Your task to perform on an android device: change the upload size in google photos Image 0: 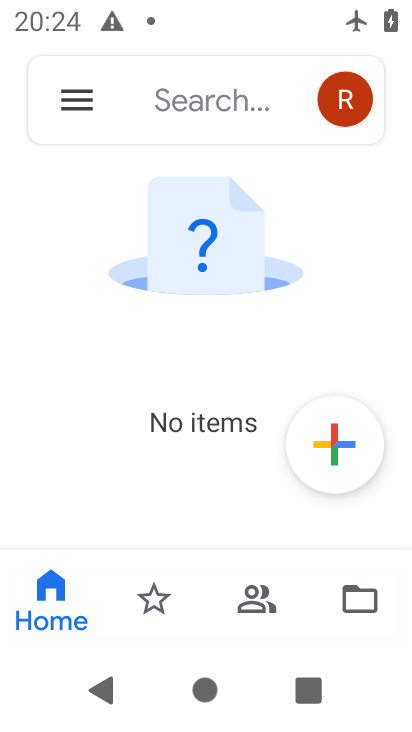
Step 0: press home button
Your task to perform on an android device: change the upload size in google photos Image 1: 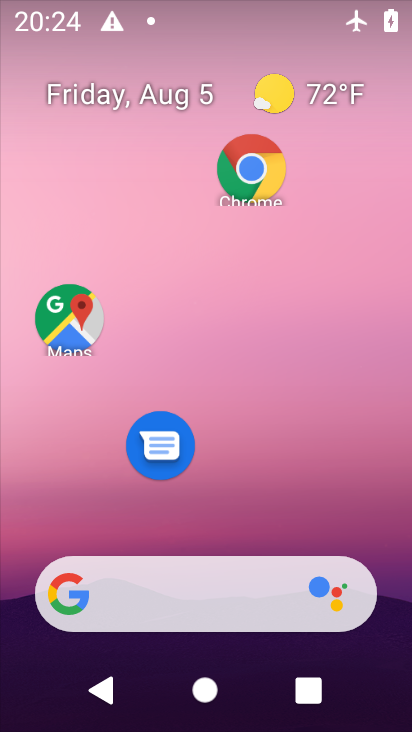
Step 1: drag from (212, 536) to (183, 230)
Your task to perform on an android device: change the upload size in google photos Image 2: 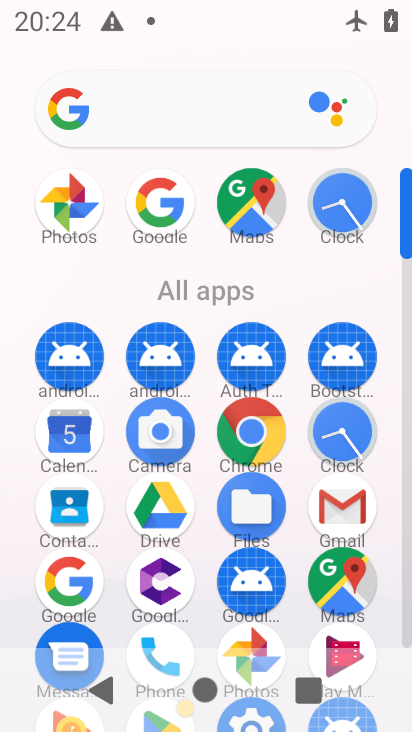
Step 2: click (77, 226)
Your task to perform on an android device: change the upload size in google photos Image 3: 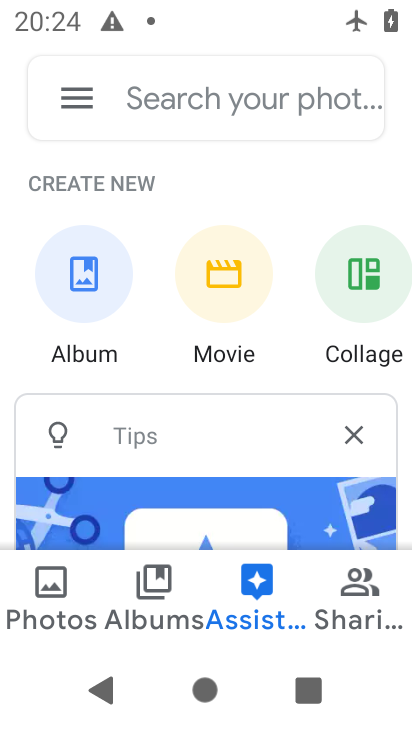
Step 3: click (90, 109)
Your task to perform on an android device: change the upload size in google photos Image 4: 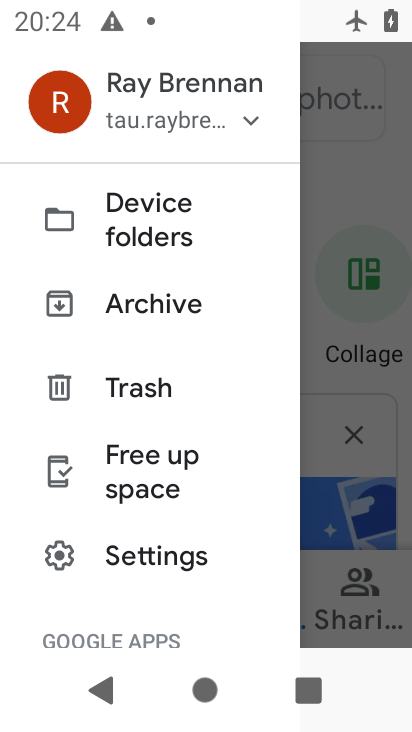
Step 4: drag from (129, 524) to (145, 263)
Your task to perform on an android device: change the upload size in google photos Image 5: 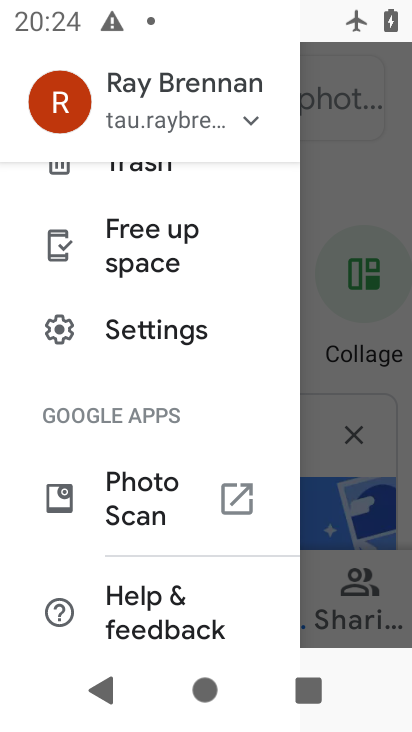
Step 5: click (149, 343)
Your task to perform on an android device: change the upload size in google photos Image 6: 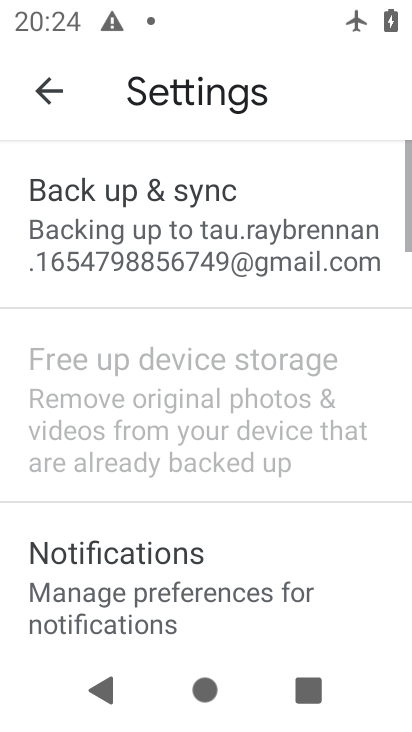
Step 6: click (149, 245)
Your task to perform on an android device: change the upload size in google photos Image 7: 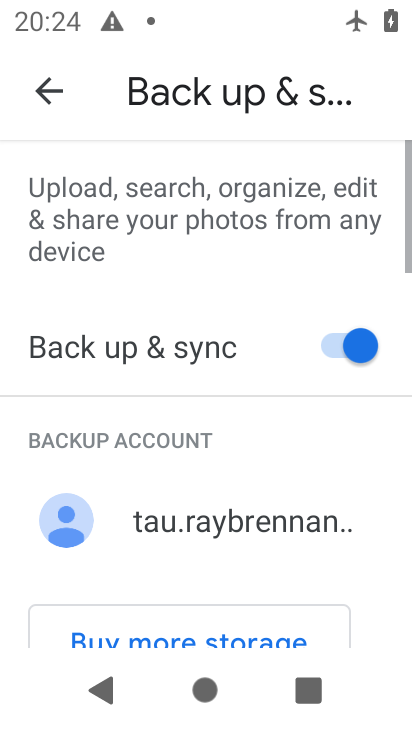
Step 7: drag from (168, 564) to (192, 211)
Your task to perform on an android device: change the upload size in google photos Image 8: 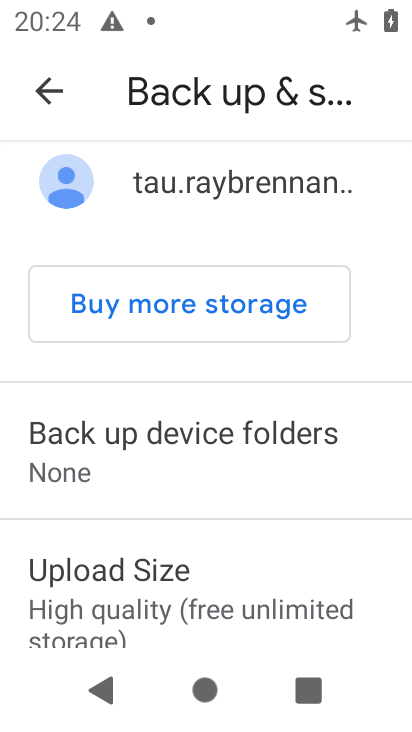
Step 8: click (209, 582)
Your task to perform on an android device: change the upload size in google photos Image 9: 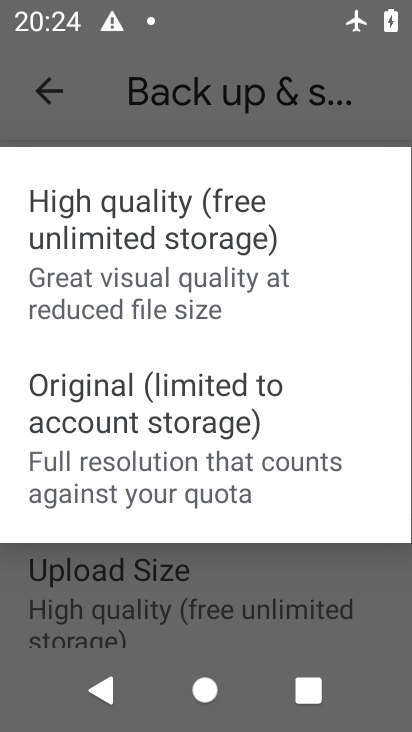
Step 9: click (139, 490)
Your task to perform on an android device: change the upload size in google photos Image 10: 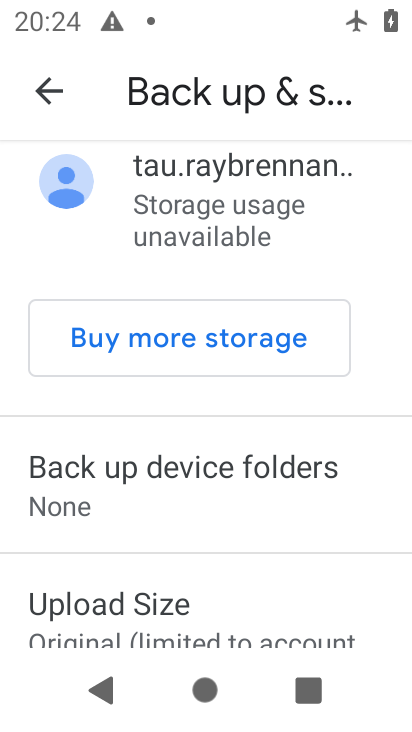
Step 10: task complete